Your task to perform on an android device: Open sound settings Image 0: 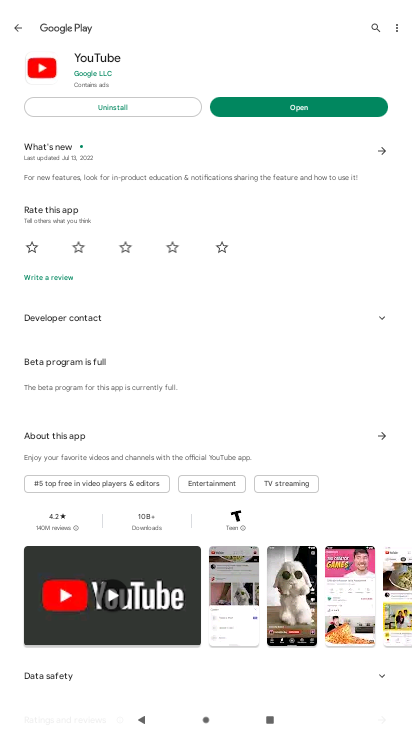
Step 0: drag from (173, 8) to (207, 630)
Your task to perform on an android device: Open sound settings Image 1: 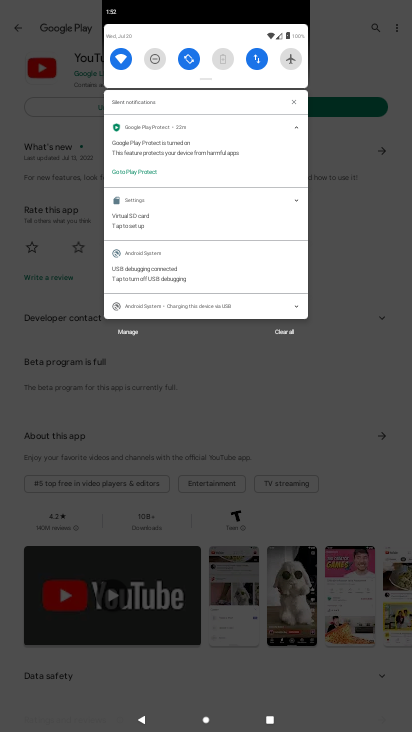
Step 1: drag from (164, 35) to (215, 626)
Your task to perform on an android device: Open sound settings Image 2: 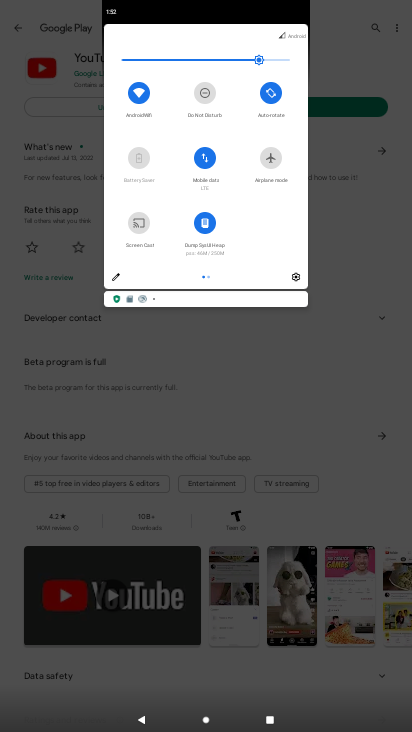
Step 2: click (292, 274)
Your task to perform on an android device: Open sound settings Image 3: 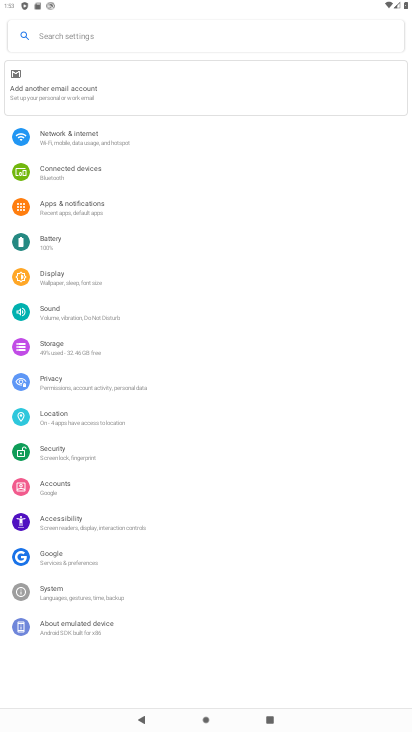
Step 3: click (64, 324)
Your task to perform on an android device: Open sound settings Image 4: 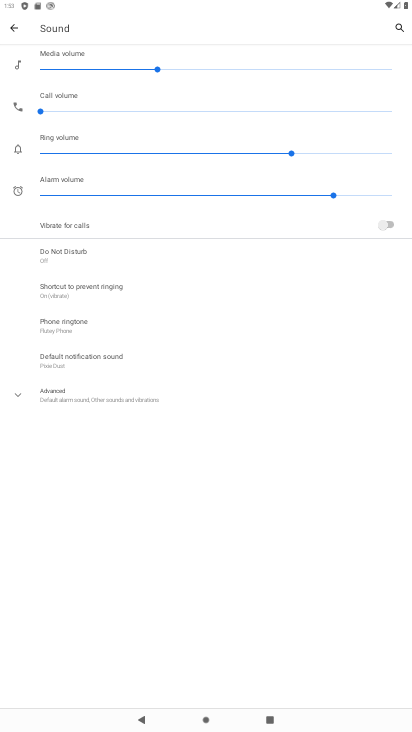
Step 4: task complete